Your task to perform on an android device: change the upload size in google photos Image 0: 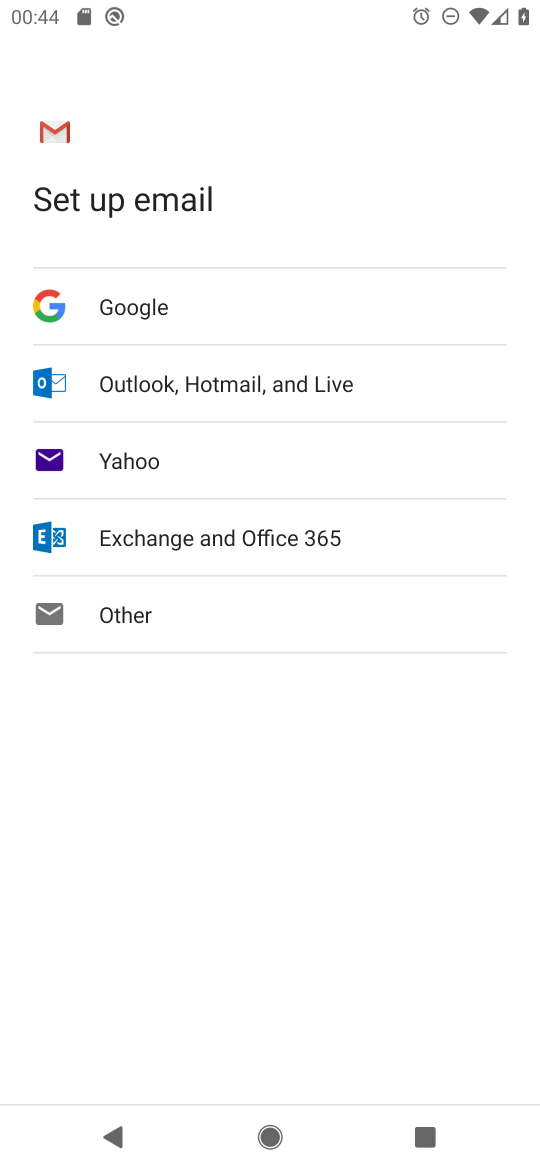
Step 0: press home button
Your task to perform on an android device: change the upload size in google photos Image 1: 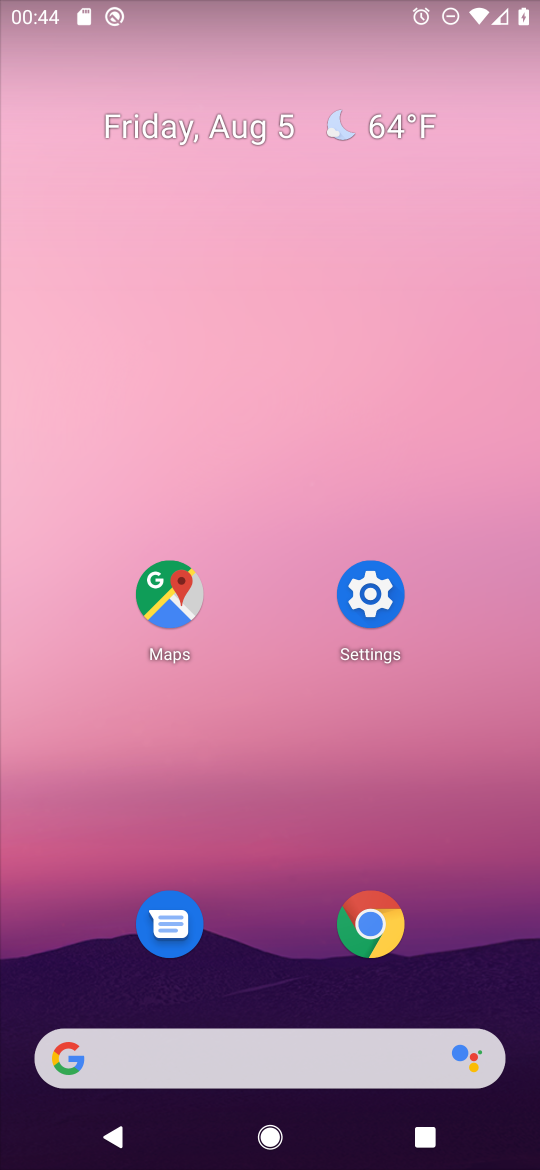
Step 1: drag from (279, 1054) to (344, 157)
Your task to perform on an android device: change the upload size in google photos Image 2: 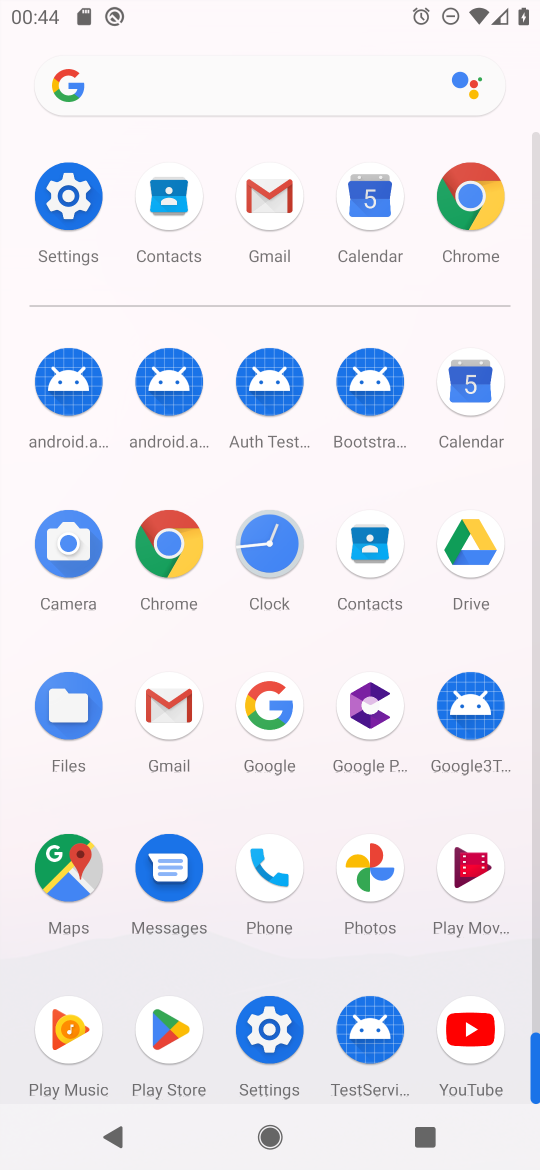
Step 2: click (361, 859)
Your task to perform on an android device: change the upload size in google photos Image 3: 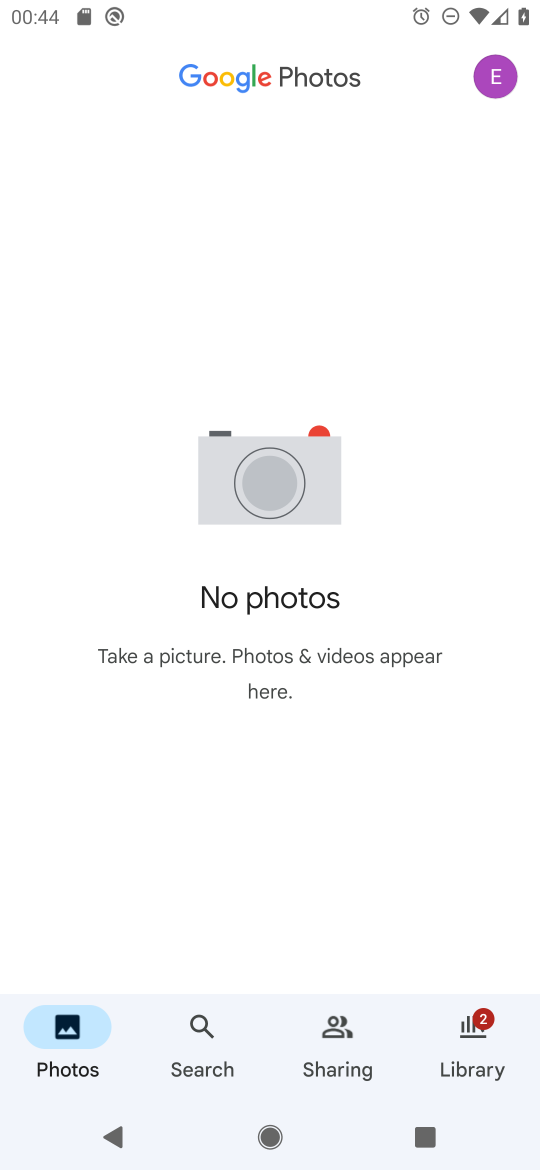
Step 3: click (492, 77)
Your task to perform on an android device: change the upload size in google photos Image 4: 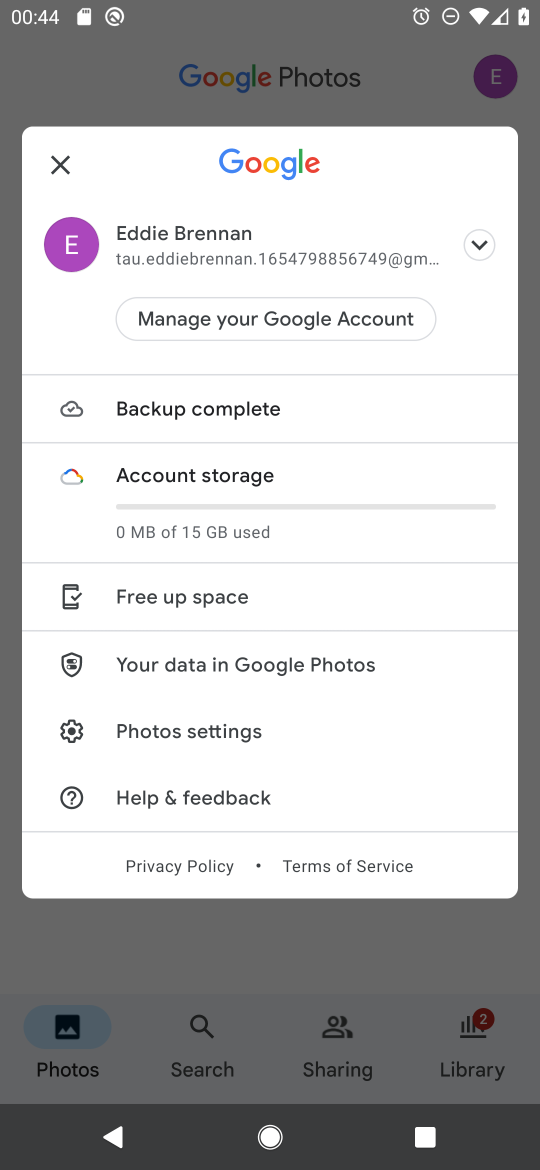
Step 4: click (171, 736)
Your task to perform on an android device: change the upload size in google photos Image 5: 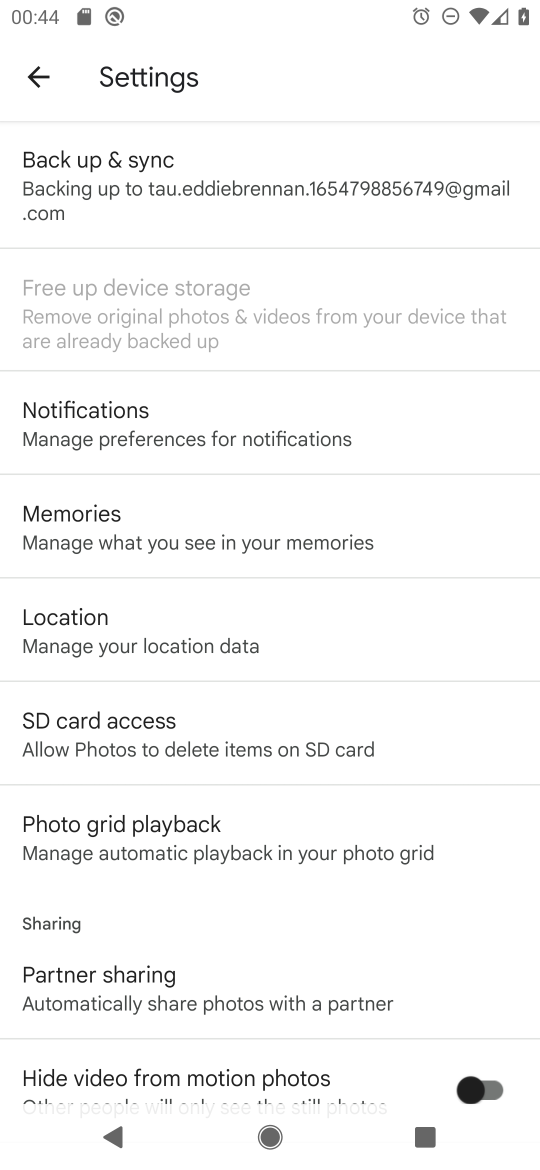
Step 5: click (196, 219)
Your task to perform on an android device: change the upload size in google photos Image 6: 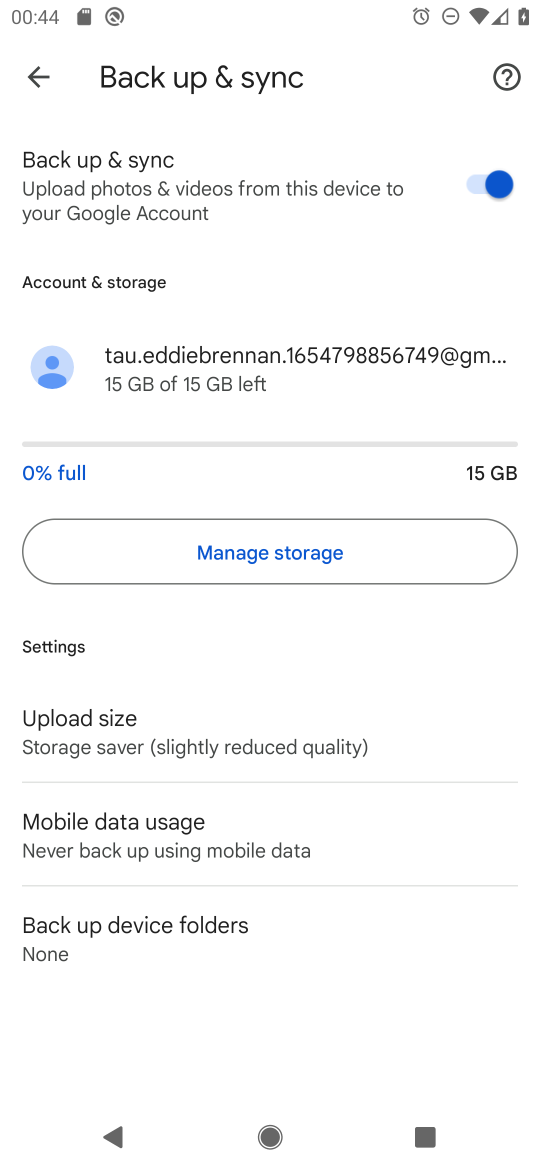
Step 6: click (165, 745)
Your task to perform on an android device: change the upload size in google photos Image 7: 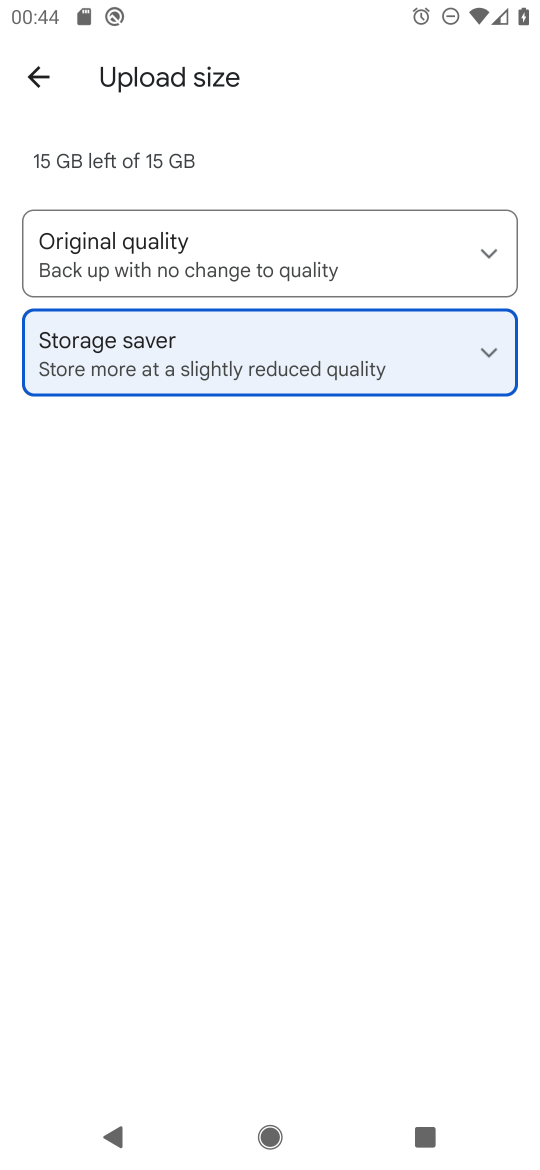
Step 7: click (503, 240)
Your task to perform on an android device: change the upload size in google photos Image 8: 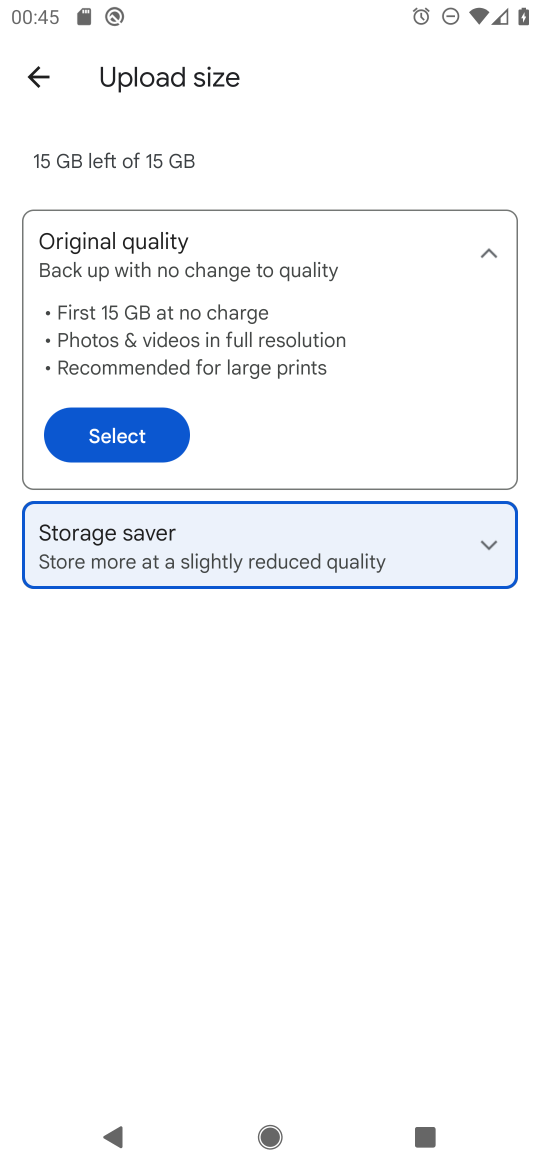
Step 8: click (127, 441)
Your task to perform on an android device: change the upload size in google photos Image 9: 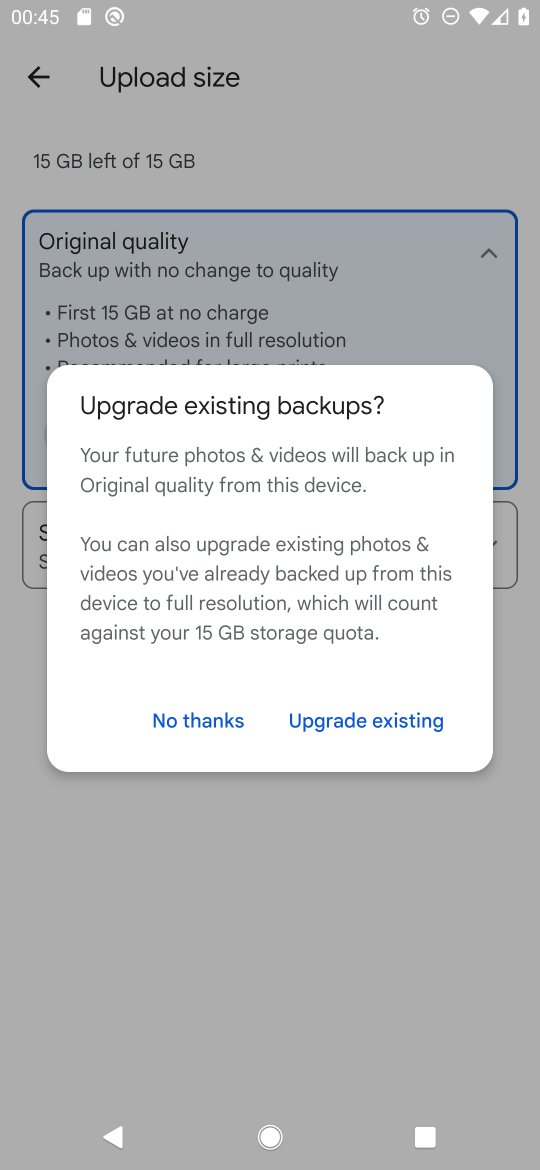
Step 9: click (344, 736)
Your task to perform on an android device: change the upload size in google photos Image 10: 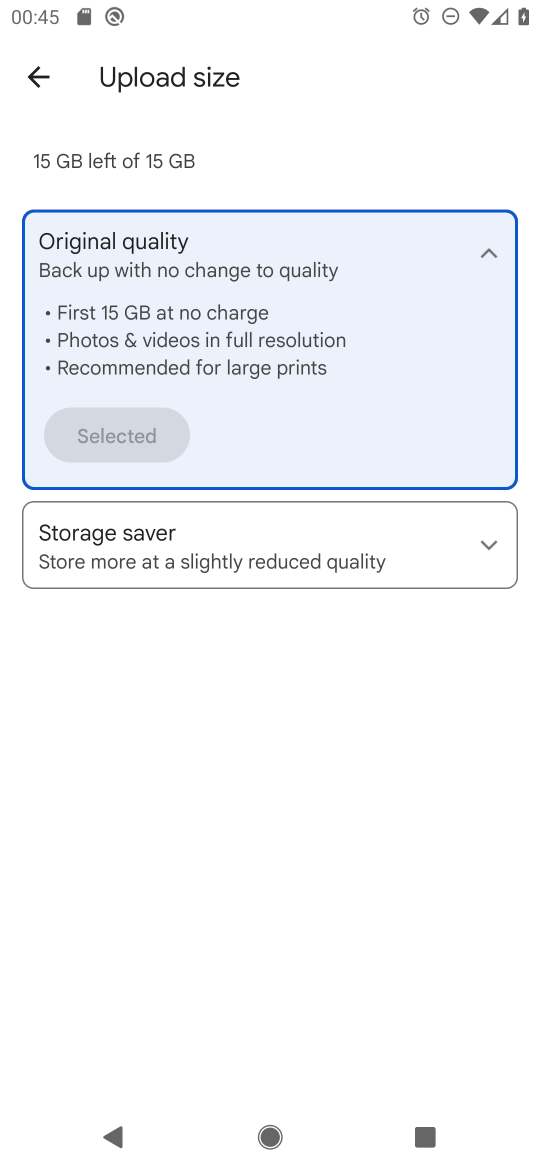
Step 10: task complete